Your task to perform on an android device: delete the emails in spam in the gmail app Image 0: 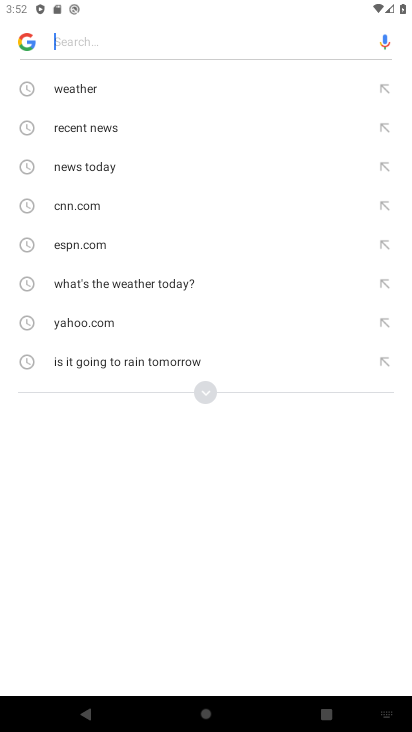
Step 0: press back button
Your task to perform on an android device: delete the emails in spam in the gmail app Image 1: 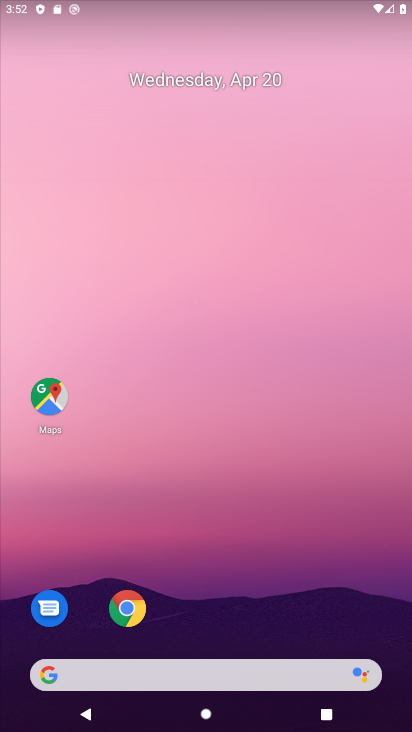
Step 1: drag from (234, 695) to (242, 74)
Your task to perform on an android device: delete the emails in spam in the gmail app Image 2: 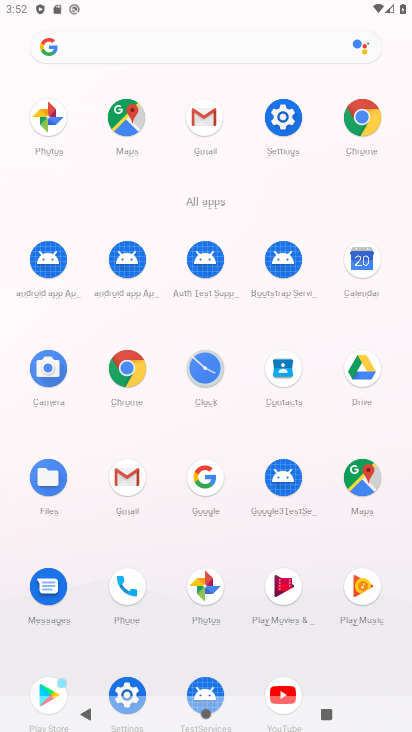
Step 2: click (203, 140)
Your task to perform on an android device: delete the emails in spam in the gmail app Image 3: 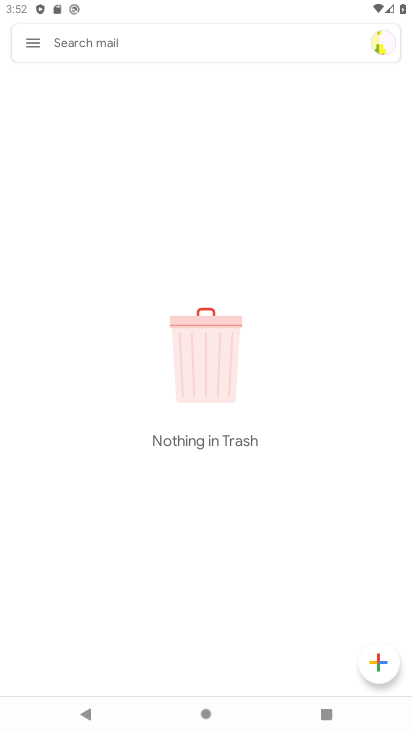
Step 3: click (30, 41)
Your task to perform on an android device: delete the emails in spam in the gmail app Image 4: 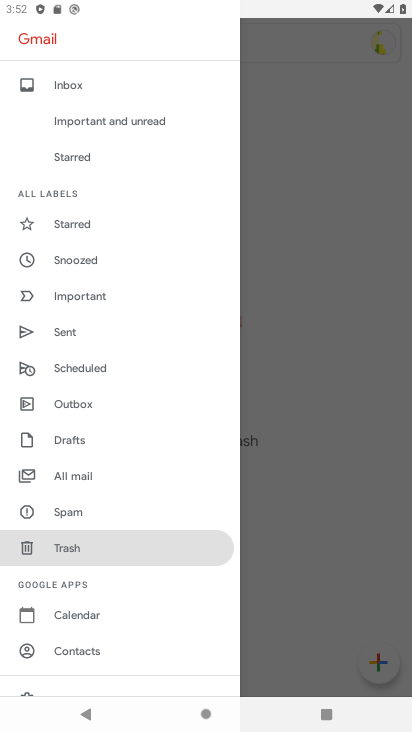
Step 4: click (70, 511)
Your task to perform on an android device: delete the emails in spam in the gmail app Image 5: 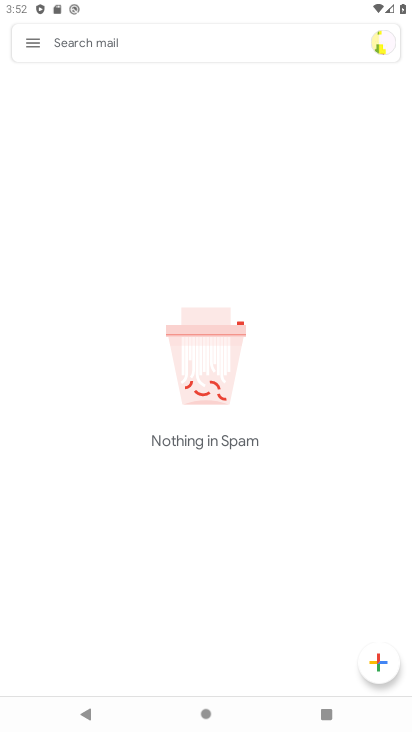
Step 5: task complete